Your task to perform on an android device: turn on location history Image 0: 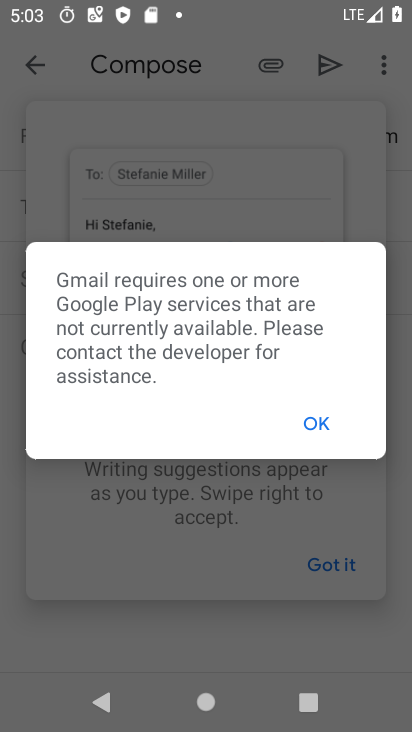
Step 0: press home button
Your task to perform on an android device: turn on location history Image 1: 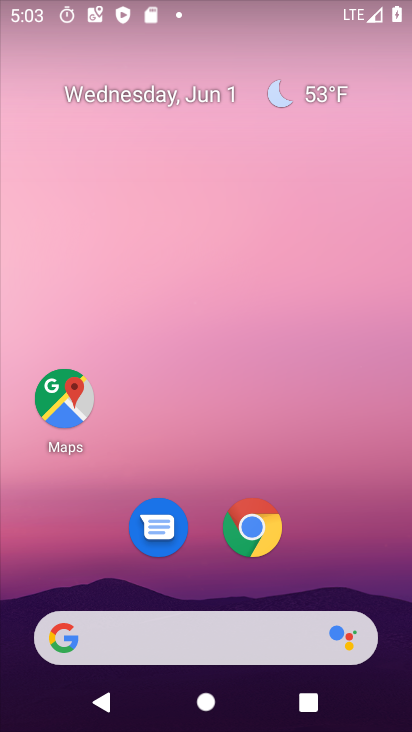
Step 1: drag from (336, 531) to (395, 58)
Your task to perform on an android device: turn on location history Image 2: 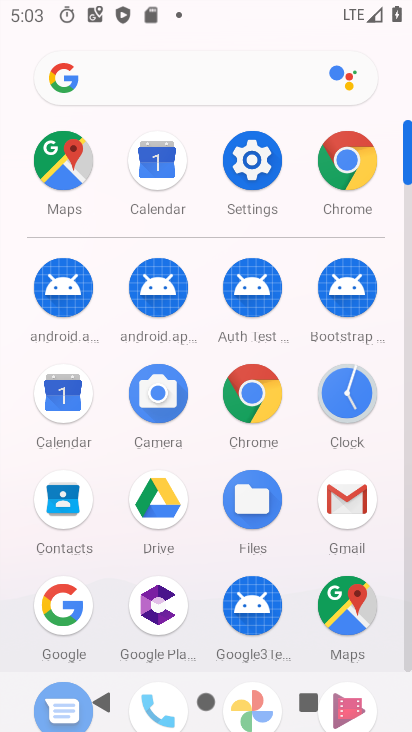
Step 2: click (348, 593)
Your task to perform on an android device: turn on location history Image 3: 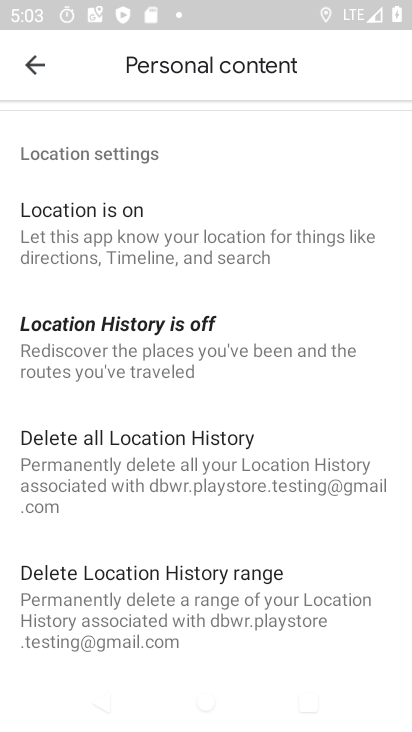
Step 3: click (122, 326)
Your task to perform on an android device: turn on location history Image 4: 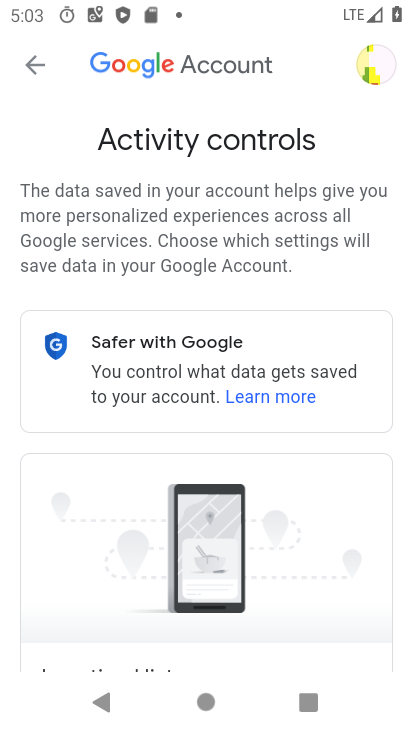
Step 4: drag from (258, 565) to (330, 205)
Your task to perform on an android device: turn on location history Image 5: 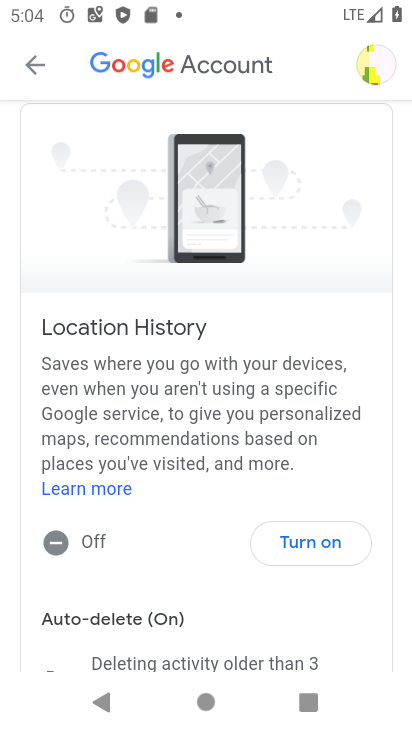
Step 5: click (314, 550)
Your task to perform on an android device: turn on location history Image 6: 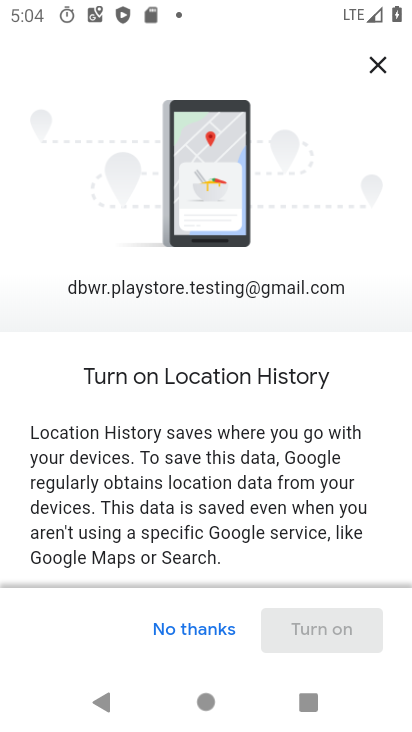
Step 6: drag from (301, 544) to (381, 163)
Your task to perform on an android device: turn on location history Image 7: 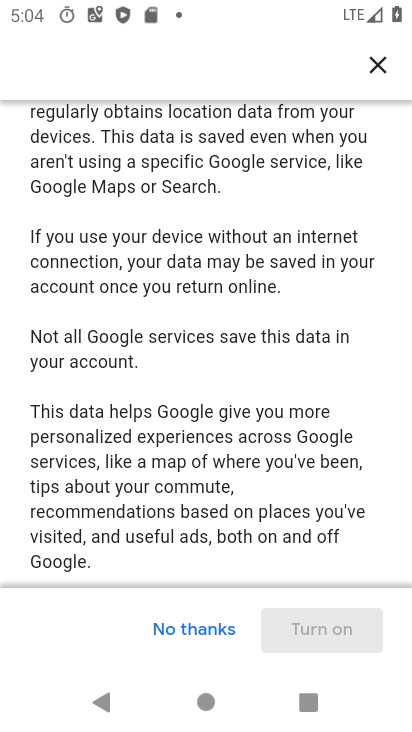
Step 7: drag from (198, 520) to (291, 196)
Your task to perform on an android device: turn on location history Image 8: 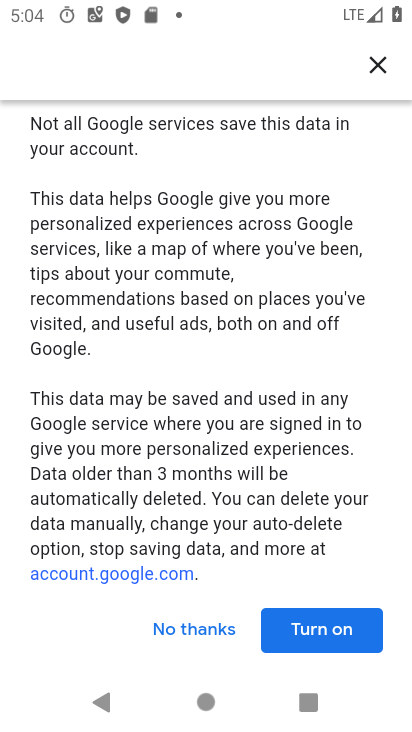
Step 8: click (292, 645)
Your task to perform on an android device: turn on location history Image 9: 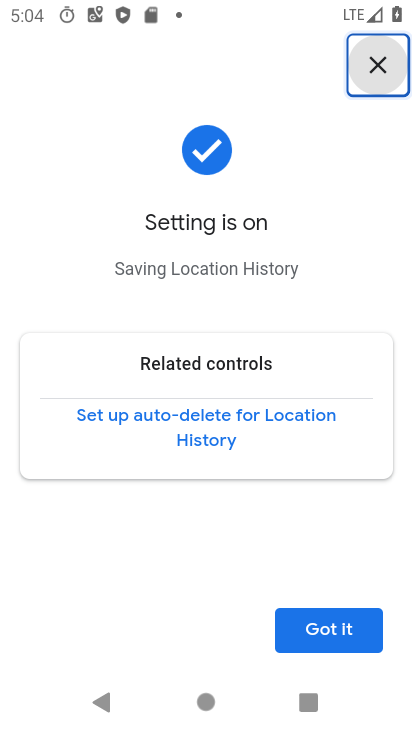
Step 9: click (328, 633)
Your task to perform on an android device: turn on location history Image 10: 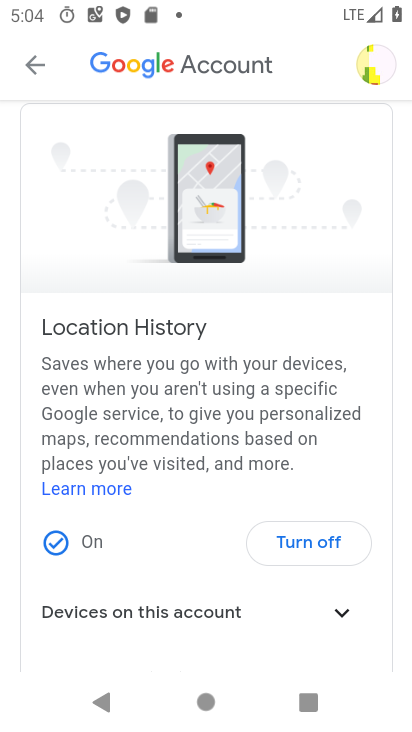
Step 10: task complete